Your task to perform on an android device: change the clock display to digital Image 0: 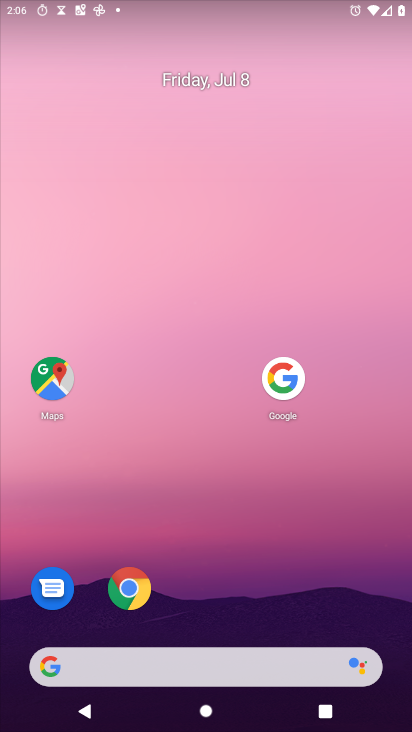
Step 0: drag from (204, 589) to (243, 194)
Your task to perform on an android device: change the clock display to digital Image 1: 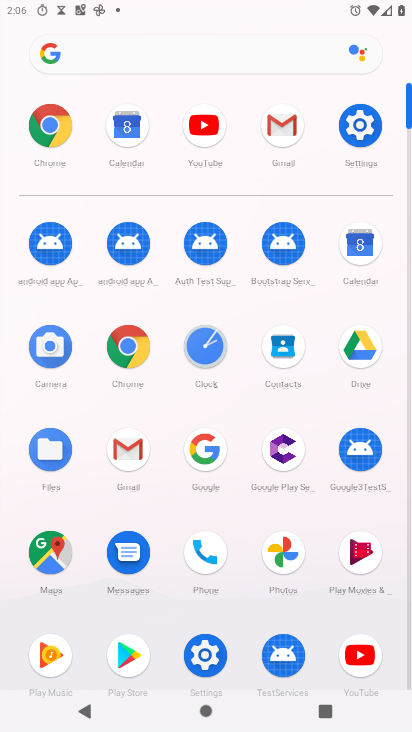
Step 1: click (199, 345)
Your task to perform on an android device: change the clock display to digital Image 2: 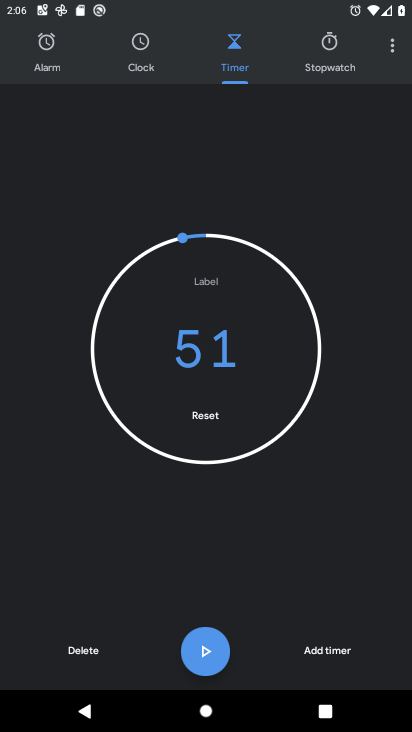
Step 2: click (387, 40)
Your task to perform on an android device: change the clock display to digital Image 3: 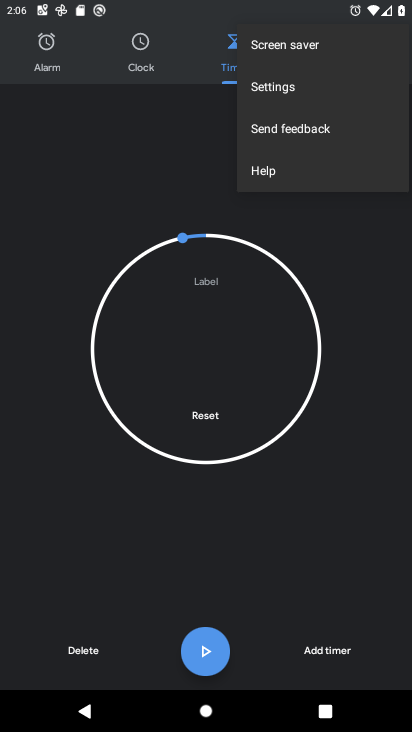
Step 3: click (293, 90)
Your task to perform on an android device: change the clock display to digital Image 4: 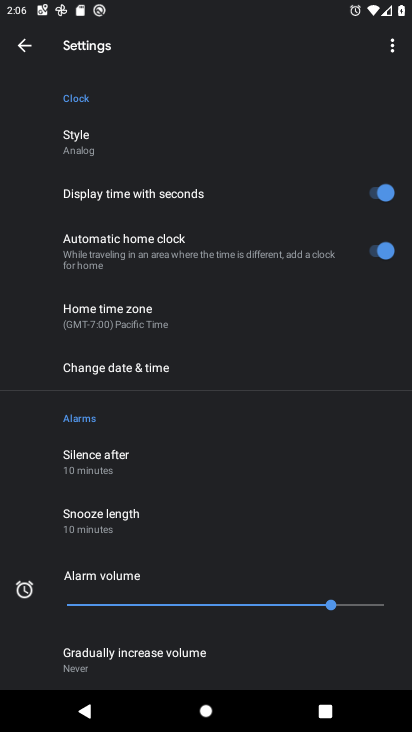
Step 4: click (93, 156)
Your task to perform on an android device: change the clock display to digital Image 5: 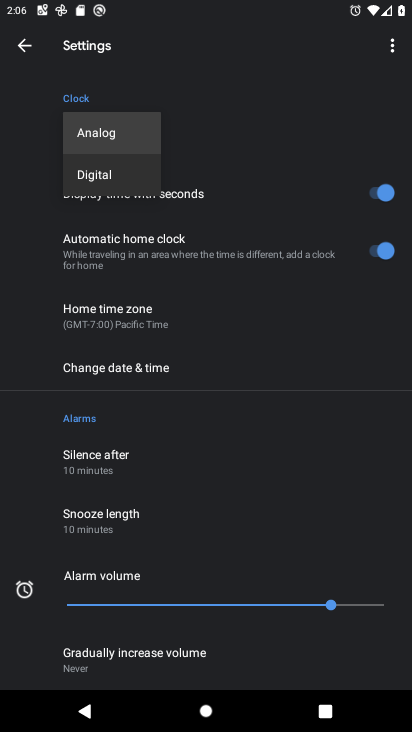
Step 5: click (108, 178)
Your task to perform on an android device: change the clock display to digital Image 6: 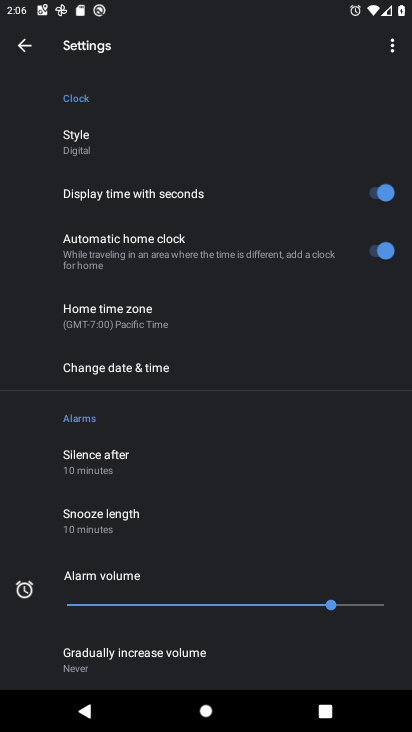
Step 6: task complete